Your task to perform on an android device: Go to CNN.com Image 0: 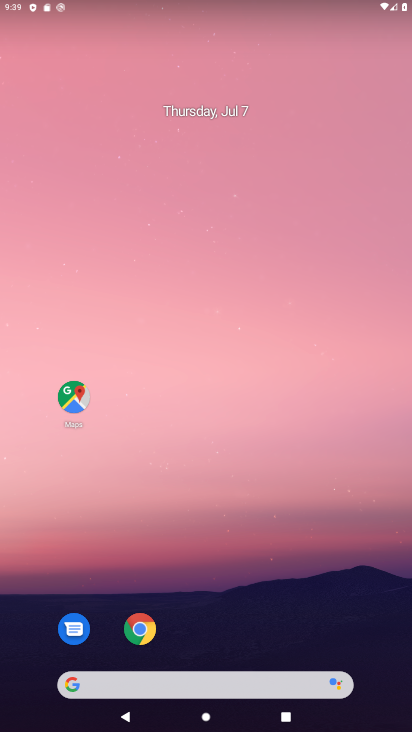
Step 0: click (114, 684)
Your task to perform on an android device: Go to CNN.com Image 1: 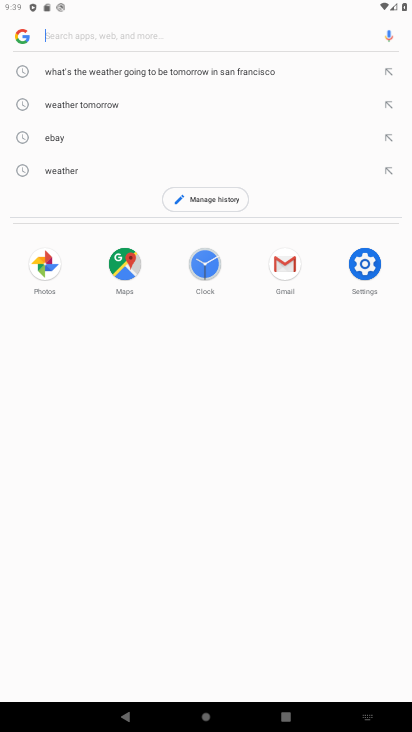
Step 1: type "CNN.com"
Your task to perform on an android device: Go to CNN.com Image 2: 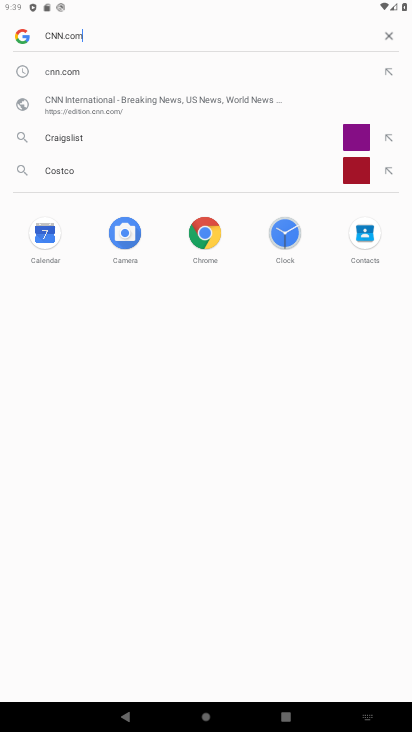
Step 2: type ""
Your task to perform on an android device: Go to CNN.com Image 3: 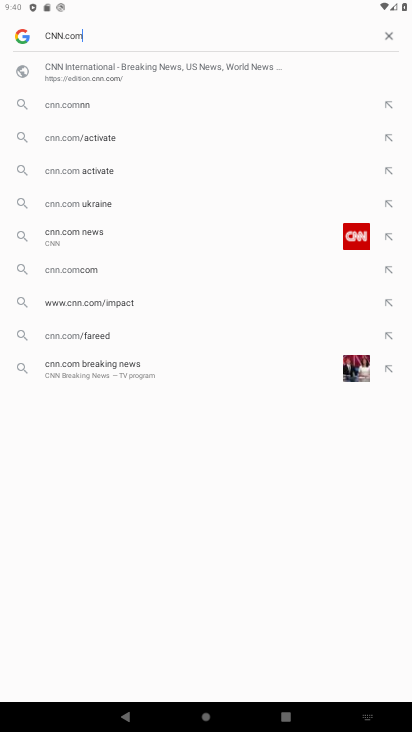
Step 3: task complete